Your task to perform on an android device: What's on my calendar tomorrow? Image 0: 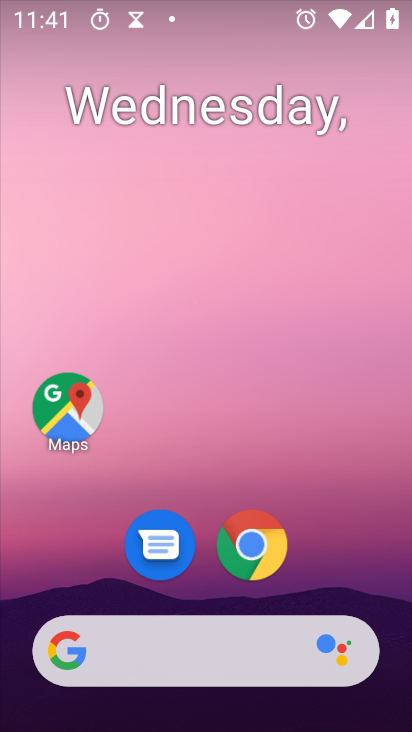
Step 0: drag from (249, 123) to (263, 11)
Your task to perform on an android device: What's on my calendar tomorrow? Image 1: 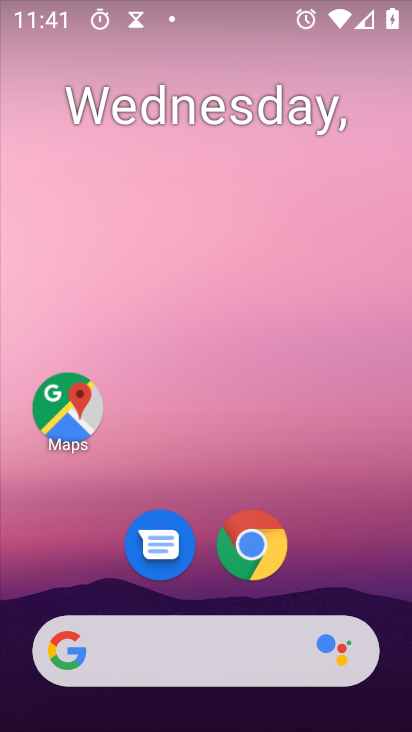
Step 1: drag from (164, 663) to (295, 85)
Your task to perform on an android device: What's on my calendar tomorrow? Image 2: 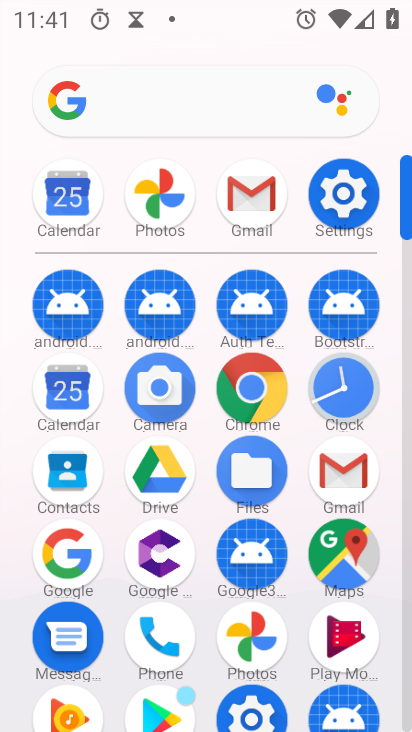
Step 2: click (68, 206)
Your task to perform on an android device: What's on my calendar tomorrow? Image 3: 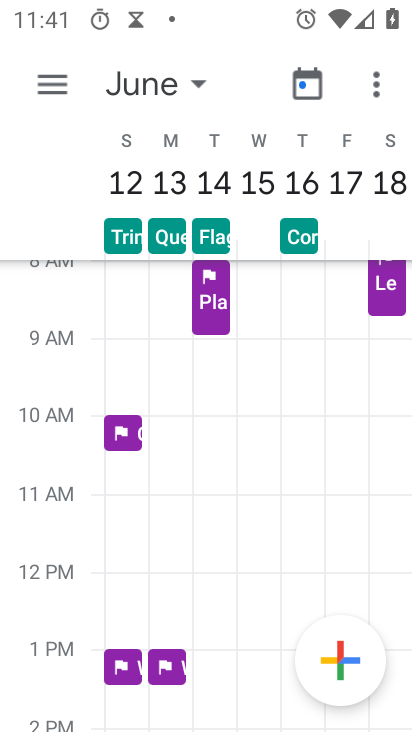
Step 3: click (150, 86)
Your task to perform on an android device: What's on my calendar tomorrow? Image 4: 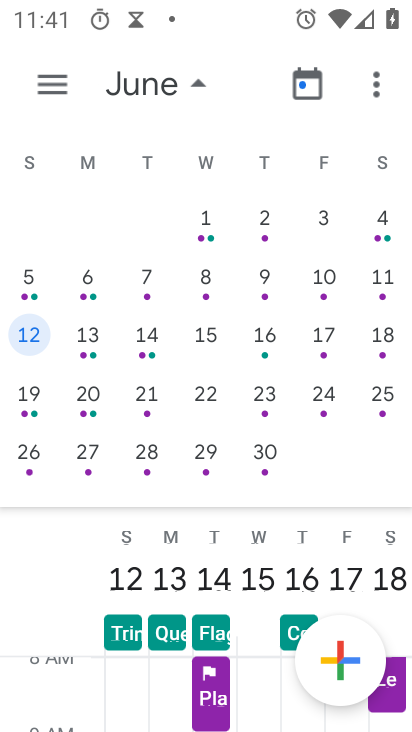
Step 4: drag from (107, 374) to (411, 362)
Your task to perform on an android device: What's on my calendar tomorrow? Image 5: 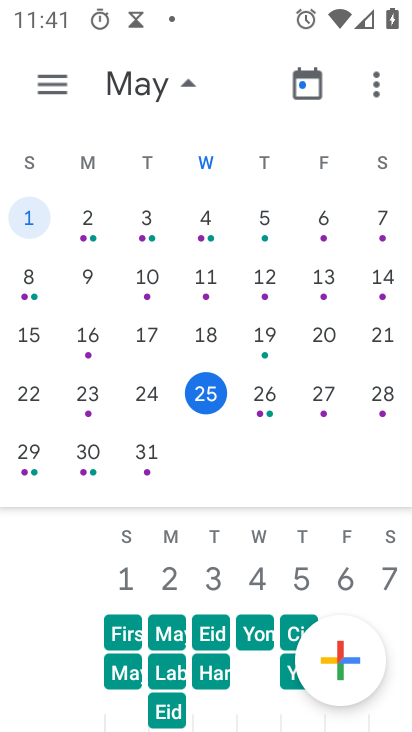
Step 5: click (254, 403)
Your task to perform on an android device: What's on my calendar tomorrow? Image 6: 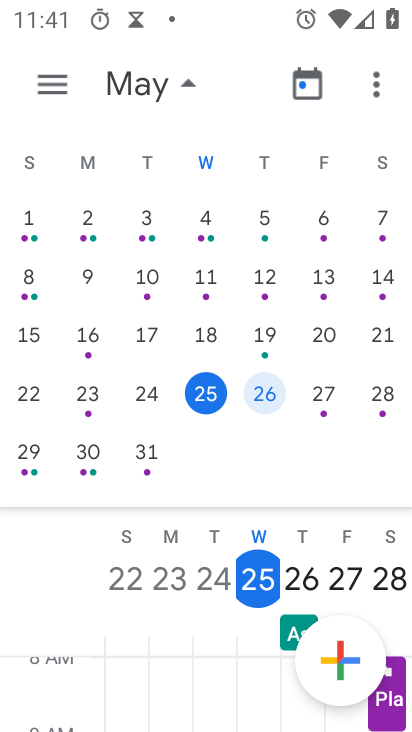
Step 6: click (47, 78)
Your task to perform on an android device: What's on my calendar tomorrow? Image 7: 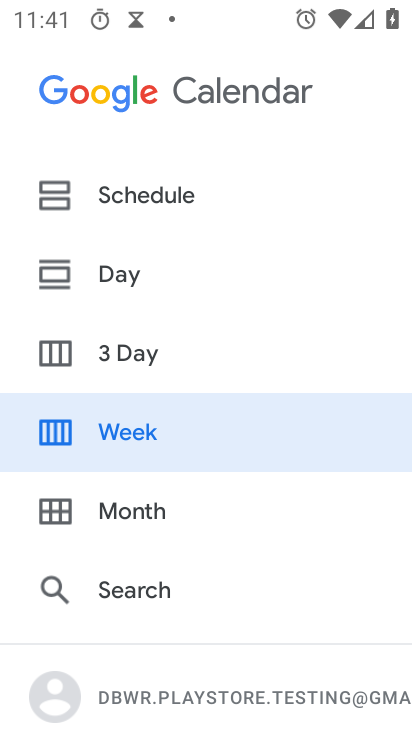
Step 7: click (130, 273)
Your task to perform on an android device: What's on my calendar tomorrow? Image 8: 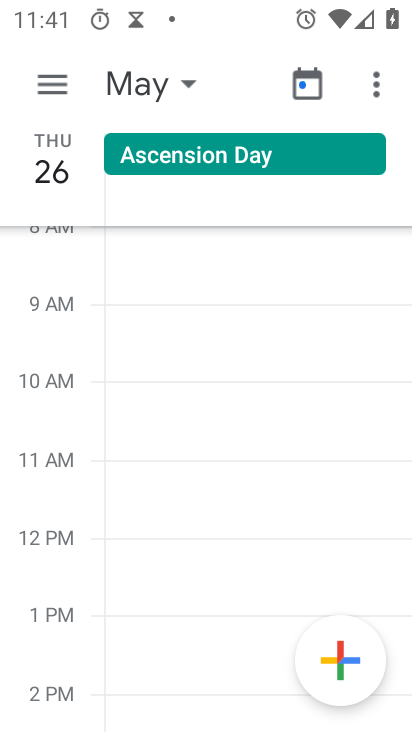
Step 8: click (62, 82)
Your task to perform on an android device: What's on my calendar tomorrow? Image 9: 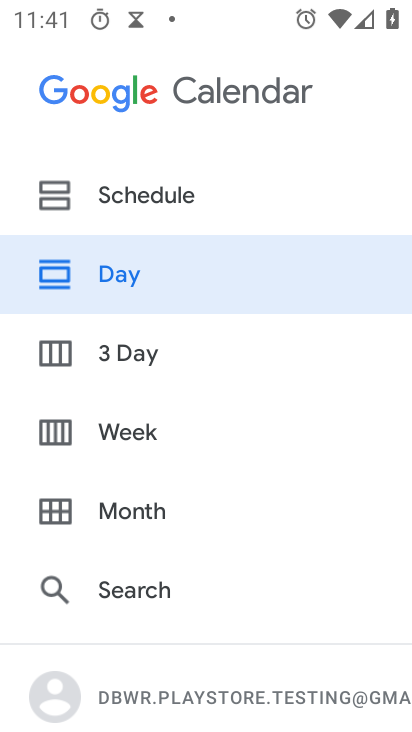
Step 9: click (162, 185)
Your task to perform on an android device: What's on my calendar tomorrow? Image 10: 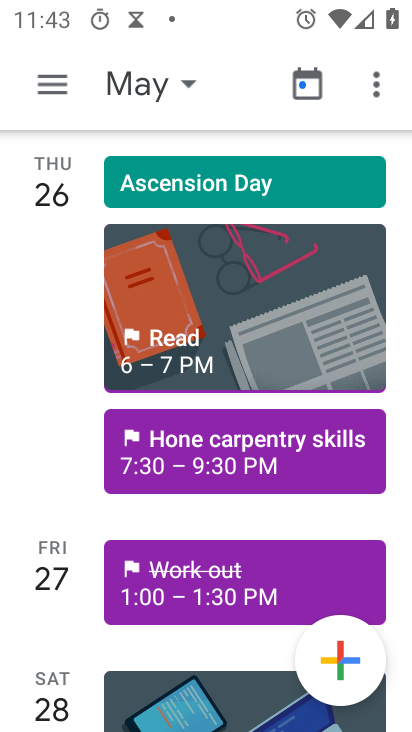
Step 10: task complete